Your task to perform on an android device: turn on improve location accuracy Image 0: 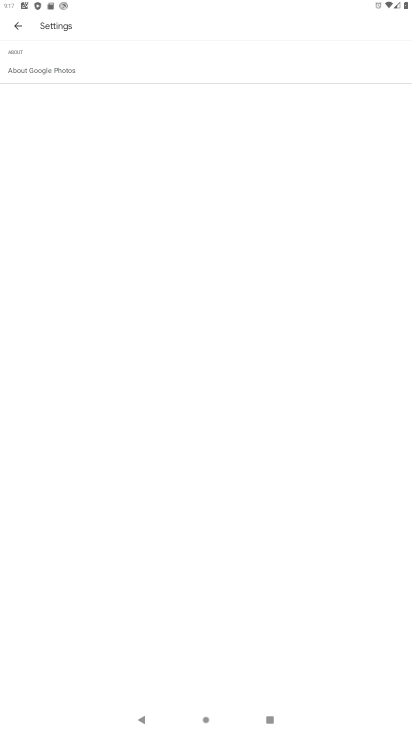
Step 0: press home button
Your task to perform on an android device: turn on improve location accuracy Image 1: 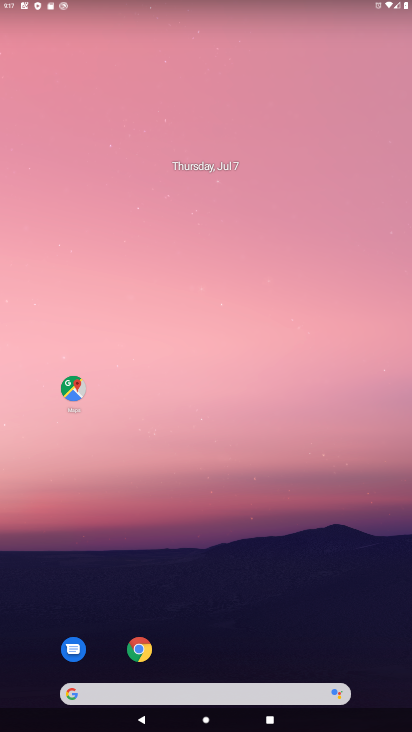
Step 1: drag from (270, 580) to (344, 65)
Your task to perform on an android device: turn on improve location accuracy Image 2: 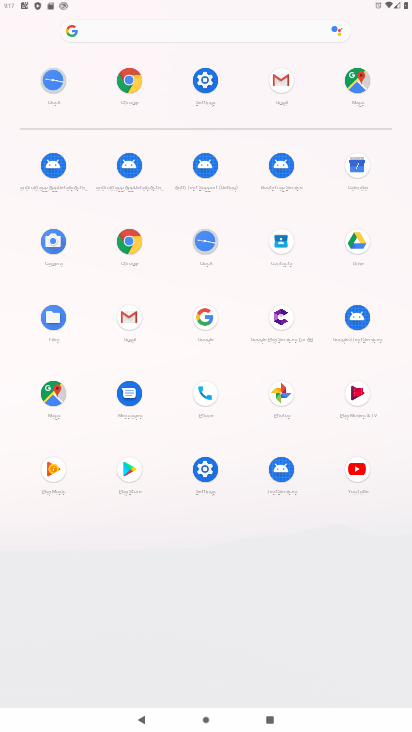
Step 2: click (207, 77)
Your task to perform on an android device: turn on improve location accuracy Image 3: 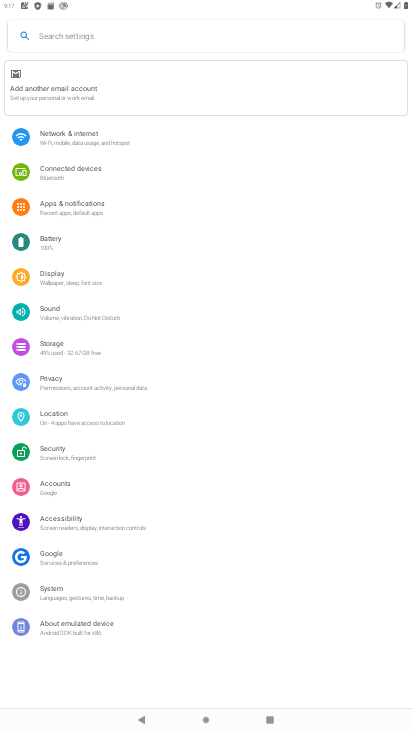
Step 3: click (72, 417)
Your task to perform on an android device: turn on improve location accuracy Image 4: 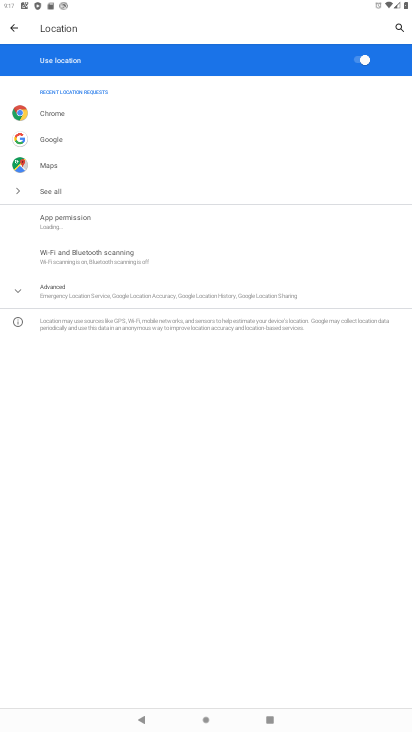
Step 4: click (151, 294)
Your task to perform on an android device: turn on improve location accuracy Image 5: 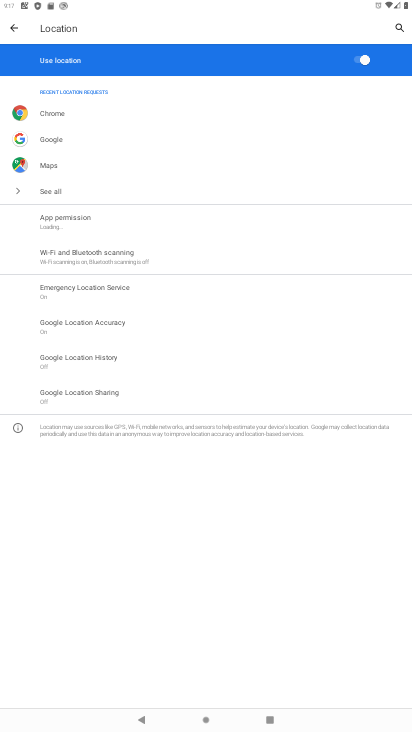
Step 5: click (179, 324)
Your task to perform on an android device: turn on improve location accuracy Image 6: 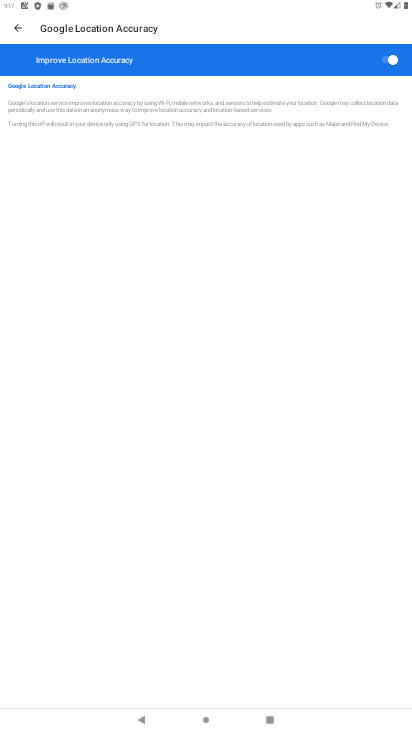
Step 6: task complete